Your task to perform on an android device: turn off smart reply in the gmail app Image 0: 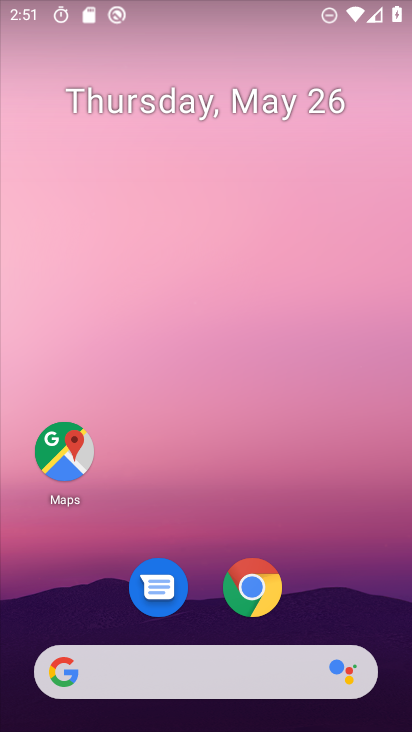
Step 0: drag from (323, 545) to (300, 184)
Your task to perform on an android device: turn off smart reply in the gmail app Image 1: 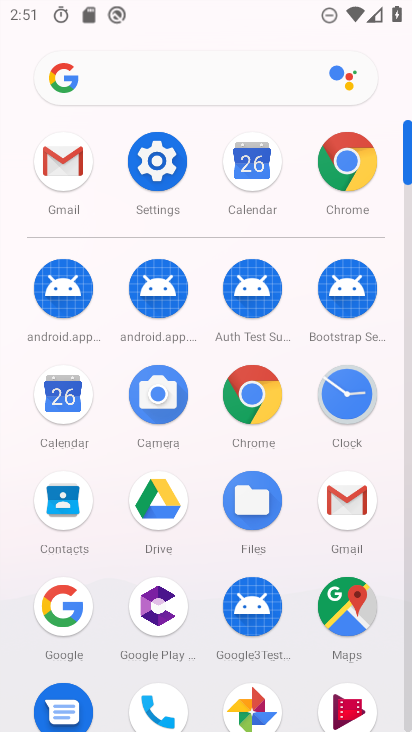
Step 1: click (348, 508)
Your task to perform on an android device: turn off smart reply in the gmail app Image 2: 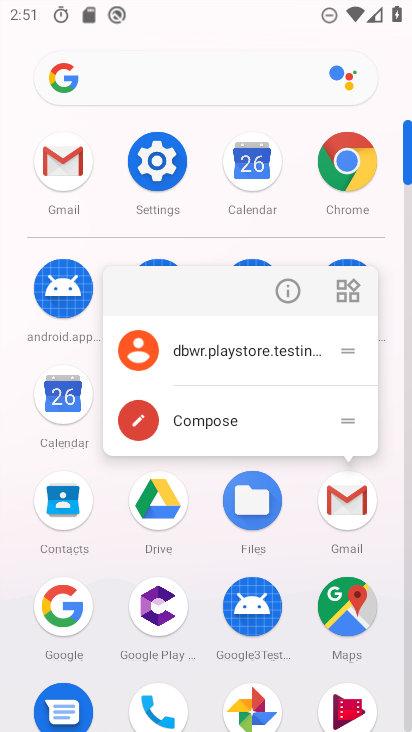
Step 2: click (348, 508)
Your task to perform on an android device: turn off smart reply in the gmail app Image 3: 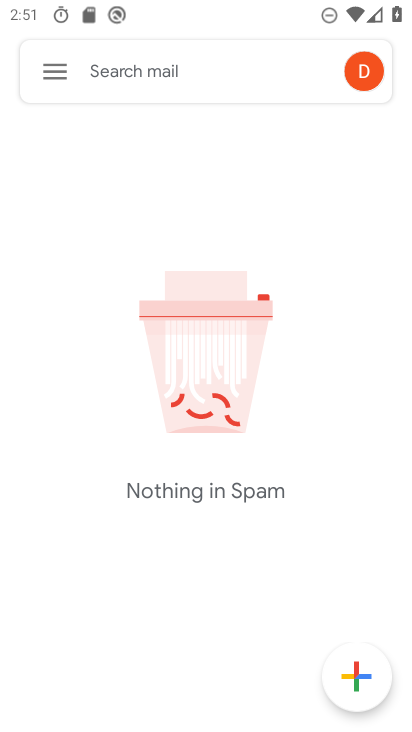
Step 3: click (67, 70)
Your task to perform on an android device: turn off smart reply in the gmail app Image 4: 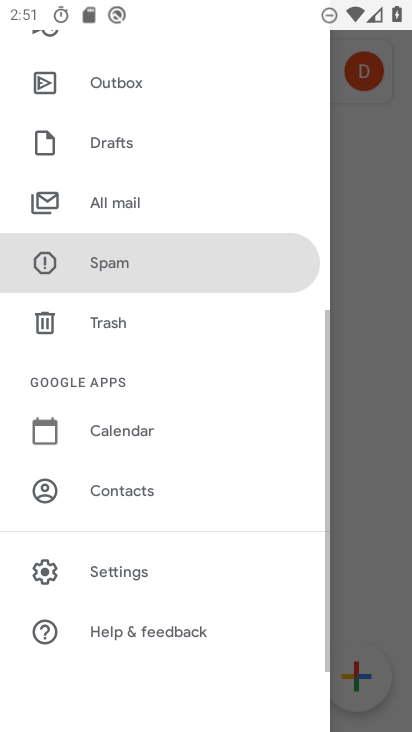
Step 4: click (156, 579)
Your task to perform on an android device: turn off smart reply in the gmail app Image 5: 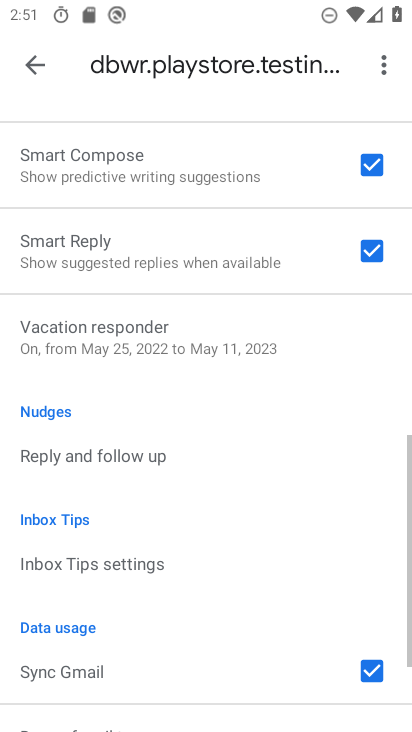
Step 5: drag from (159, 185) to (170, 627)
Your task to perform on an android device: turn off smart reply in the gmail app Image 6: 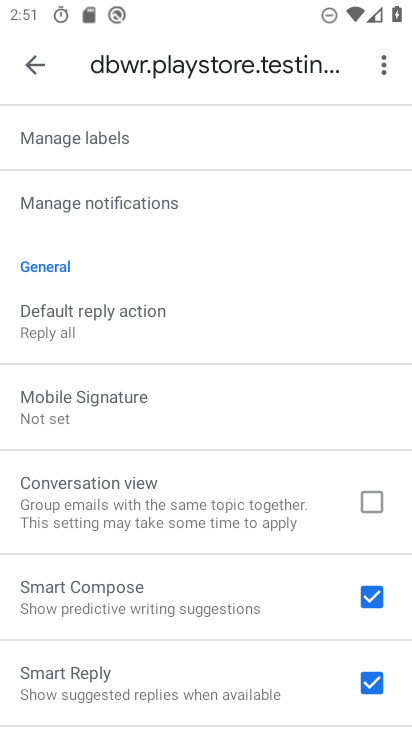
Step 6: drag from (119, 241) to (171, 593)
Your task to perform on an android device: turn off smart reply in the gmail app Image 7: 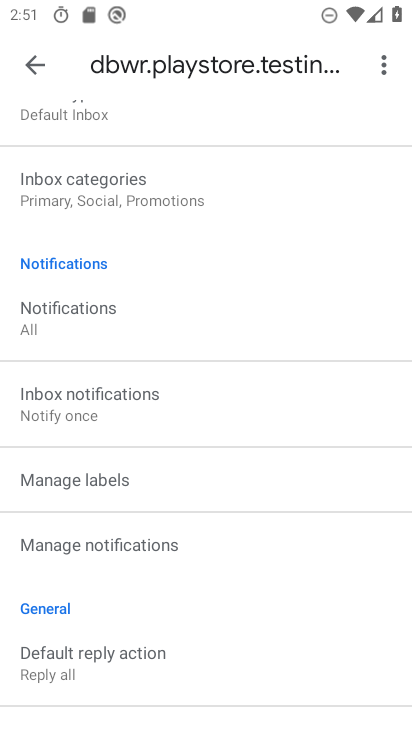
Step 7: drag from (188, 274) to (217, 70)
Your task to perform on an android device: turn off smart reply in the gmail app Image 8: 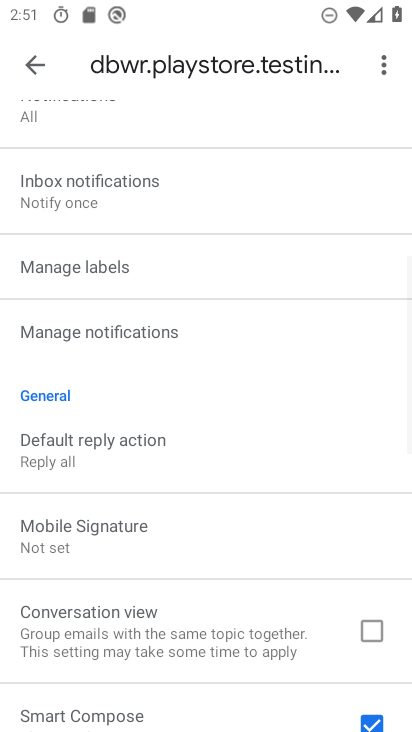
Step 8: drag from (201, 484) to (235, 132)
Your task to perform on an android device: turn off smart reply in the gmail app Image 9: 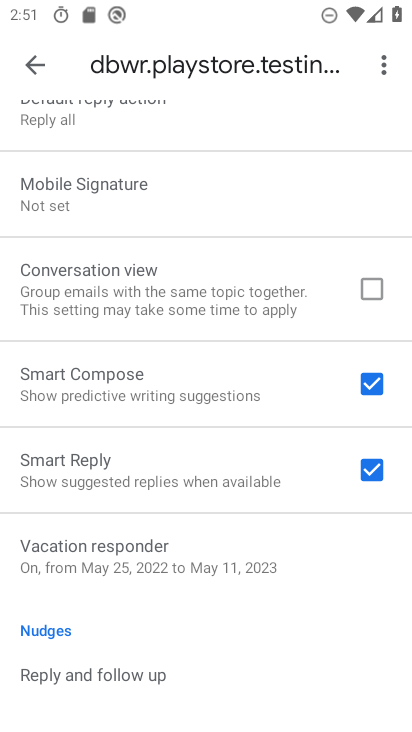
Step 9: click (383, 466)
Your task to perform on an android device: turn off smart reply in the gmail app Image 10: 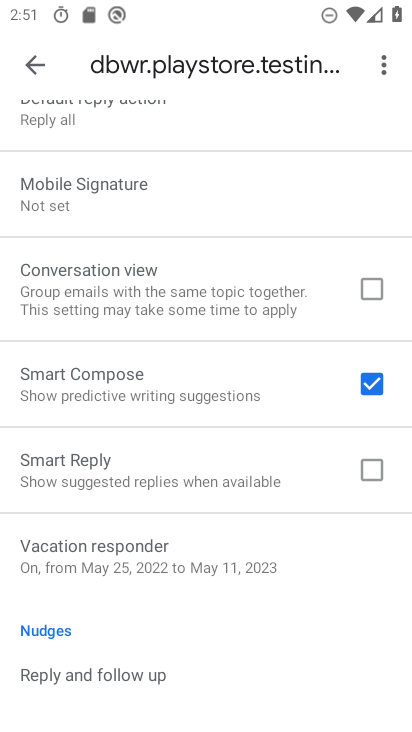
Step 10: task complete